Your task to perform on an android device: see tabs open on other devices in the chrome app Image 0: 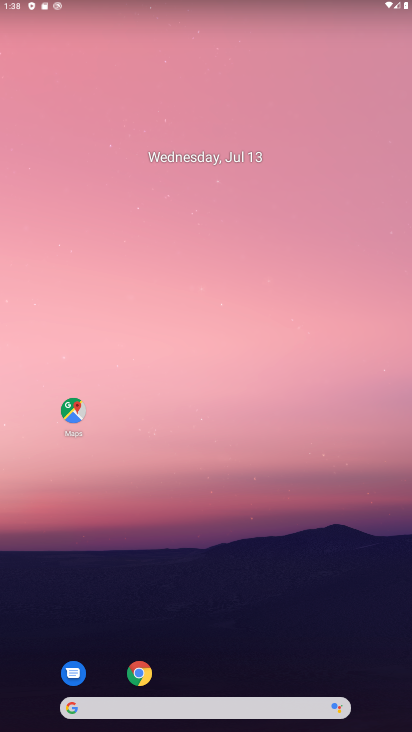
Step 0: click (138, 676)
Your task to perform on an android device: see tabs open on other devices in the chrome app Image 1: 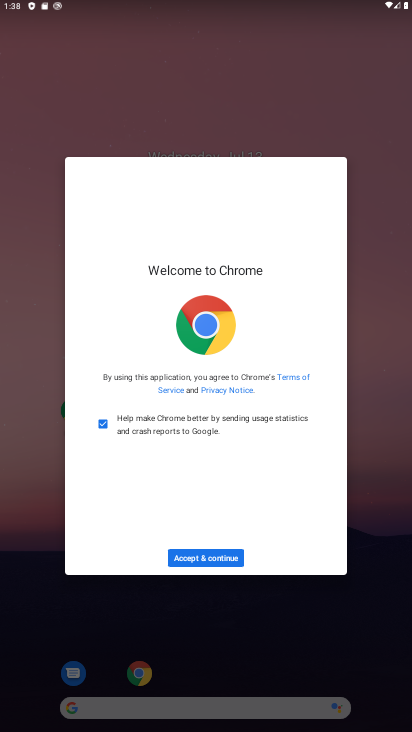
Step 1: click (200, 557)
Your task to perform on an android device: see tabs open on other devices in the chrome app Image 2: 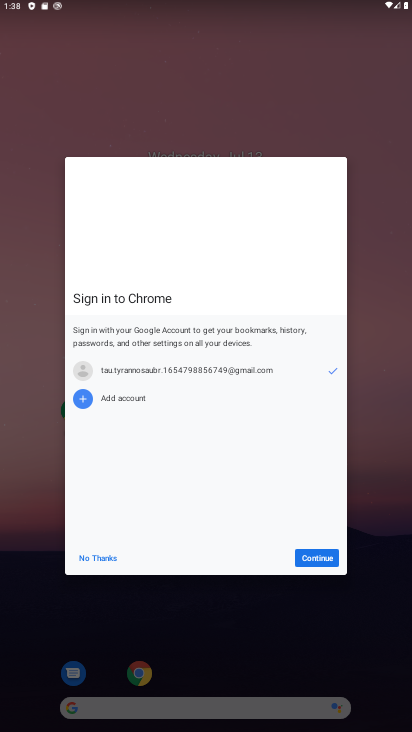
Step 2: click (320, 559)
Your task to perform on an android device: see tabs open on other devices in the chrome app Image 3: 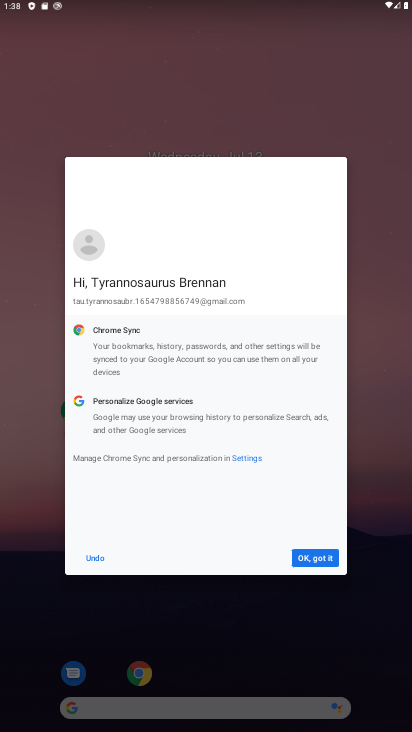
Step 3: click (308, 549)
Your task to perform on an android device: see tabs open on other devices in the chrome app Image 4: 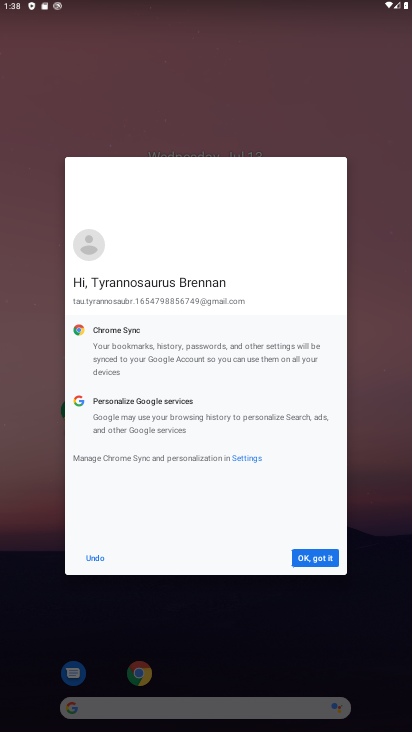
Step 4: click (308, 549)
Your task to perform on an android device: see tabs open on other devices in the chrome app Image 5: 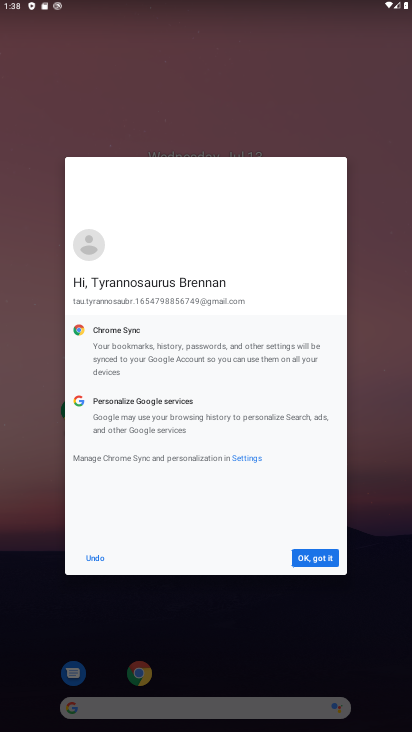
Step 5: click (326, 553)
Your task to perform on an android device: see tabs open on other devices in the chrome app Image 6: 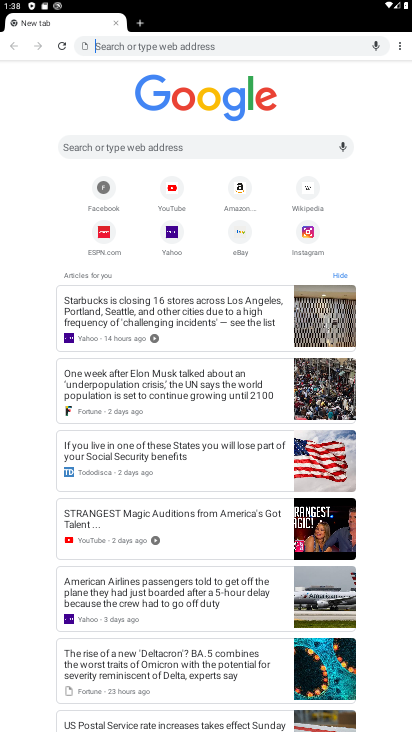
Step 6: click (399, 47)
Your task to perform on an android device: see tabs open on other devices in the chrome app Image 7: 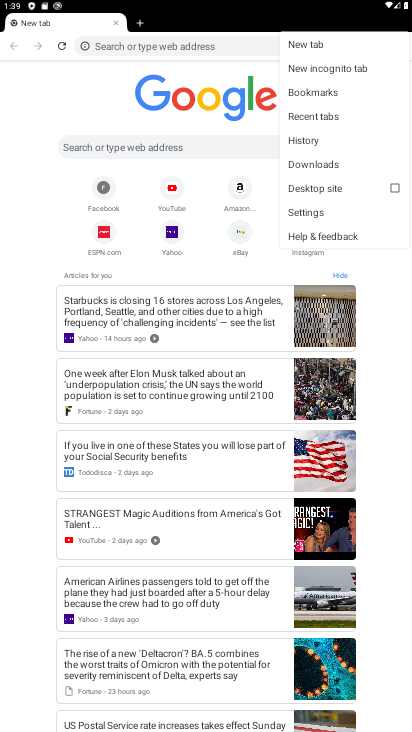
Step 7: click (339, 114)
Your task to perform on an android device: see tabs open on other devices in the chrome app Image 8: 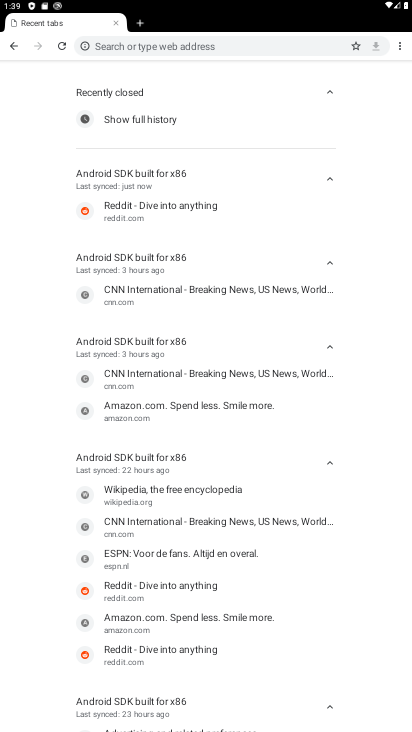
Step 8: task complete